Your task to perform on an android device: set the timer Image 0: 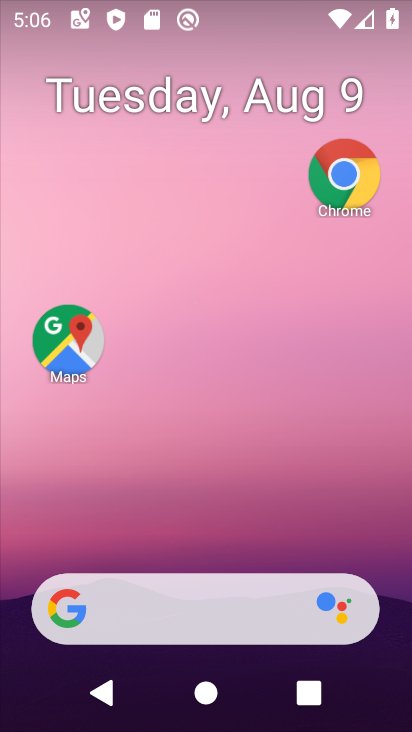
Step 0: drag from (274, 415) to (287, 181)
Your task to perform on an android device: set the timer Image 1: 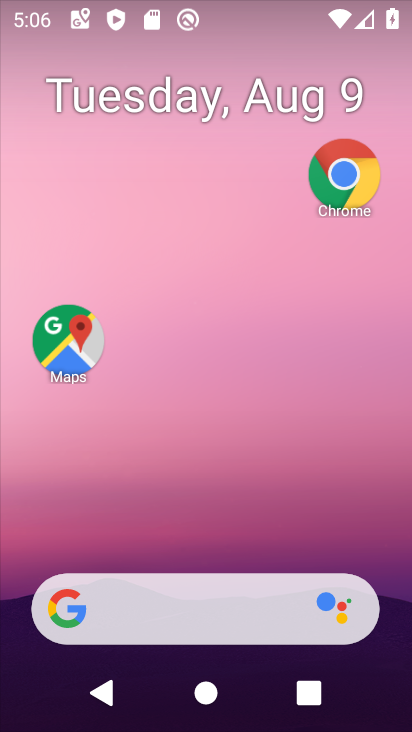
Step 1: drag from (203, 553) to (323, 123)
Your task to perform on an android device: set the timer Image 2: 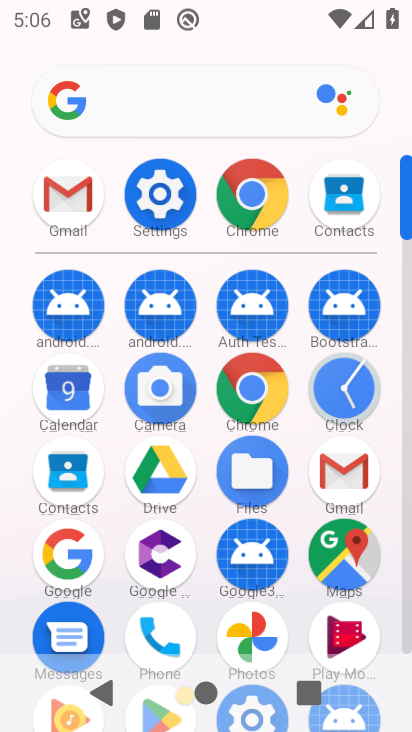
Step 2: click (371, 396)
Your task to perform on an android device: set the timer Image 3: 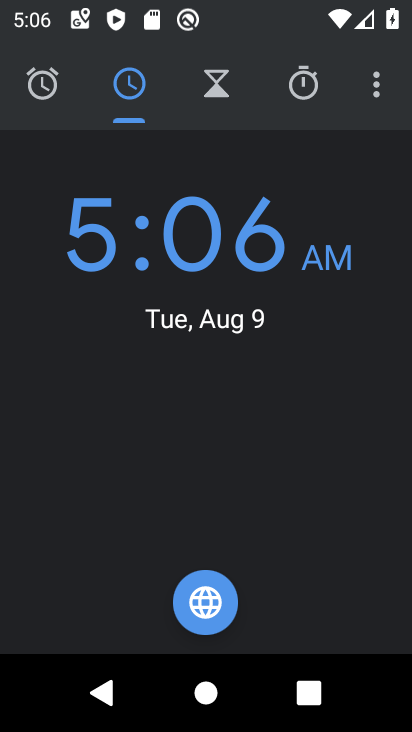
Step 3: click (223, 80)
Your task to perform on an android device: set the timer Image 4: 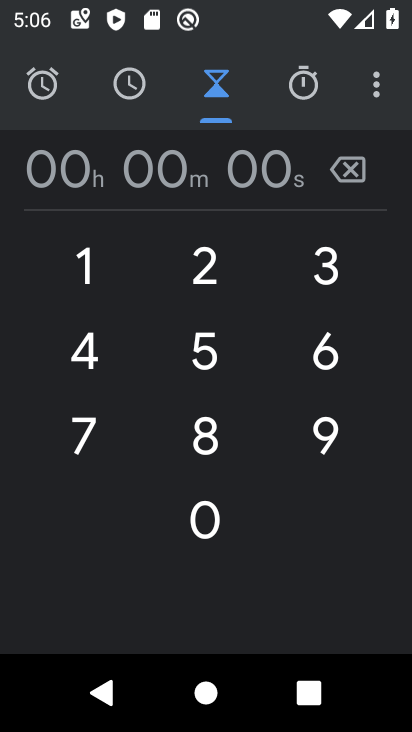
Step 4: click (227, 265)
Your task to perform on an android device: set the timer Image 5: 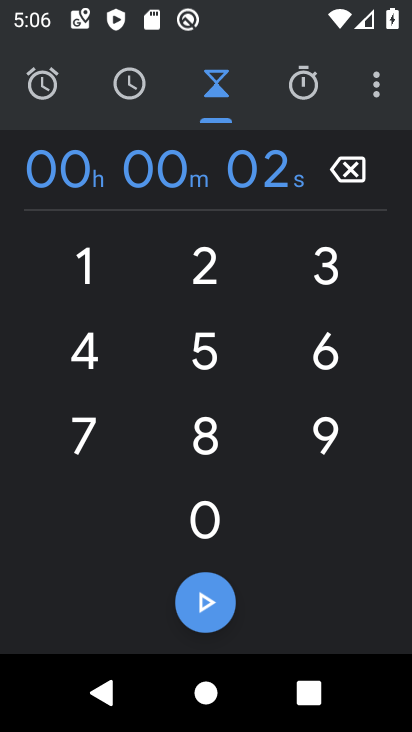
Step 5: click (192, 333)
Your task to perform on an android device: set the timer Image 6: 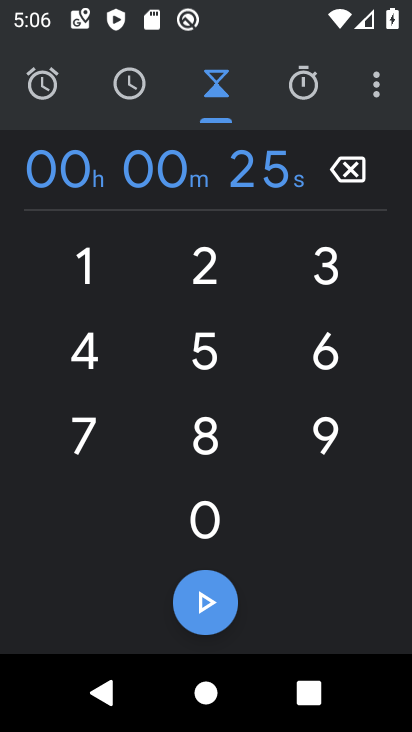
Step 6: click (190, 444)
Your task to perform on an android device: set the timer Image 7: 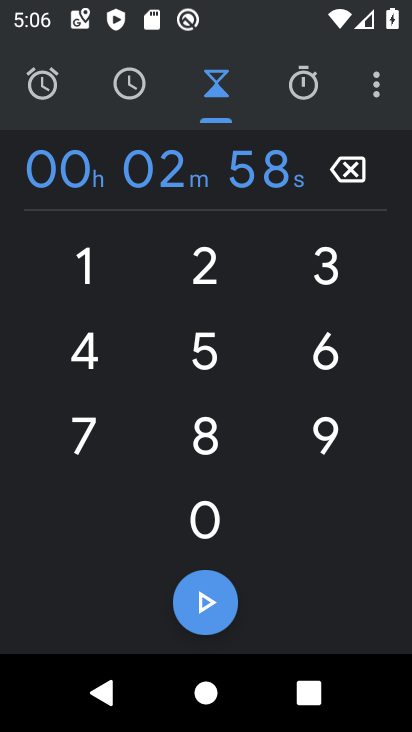
Step 7: click (199, 600)
Your task to perform on an android device: set the timer Image 8: 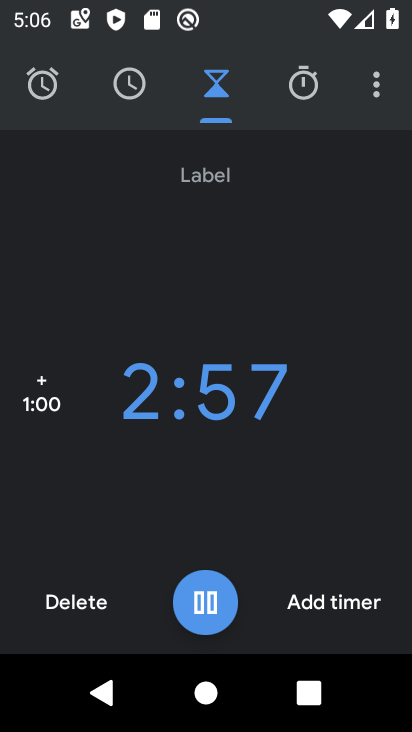
Step 8: task complete